Your task to perform on an android device: turn off location Image 0: 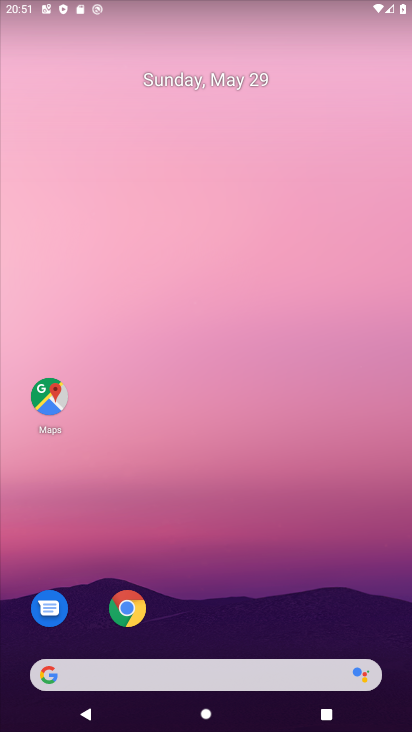
Step 0: drag from (380, 602) to (340, 301)
Your task to perform on an android device: turn off location Image 1: 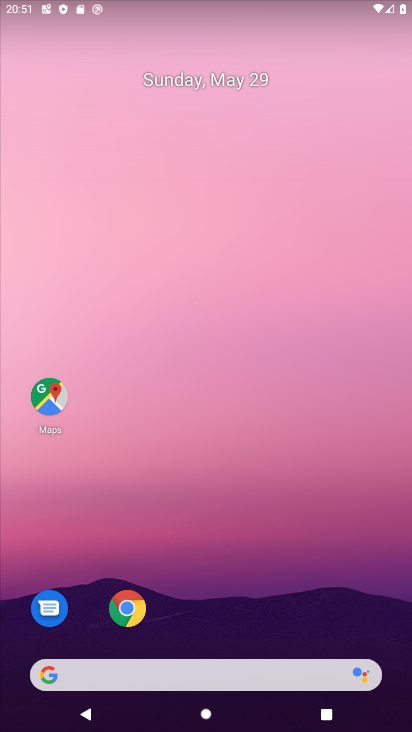
Step 1: drag from (361, 610) to (372, 230)
Your task to perform on an android device: turn off location Image 2: 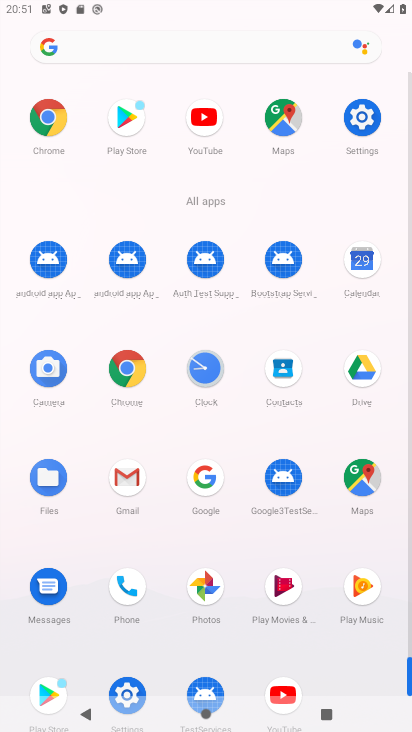
Step 2: click (364, 132)
Your task to perform on an android device: turn off location Image 3: 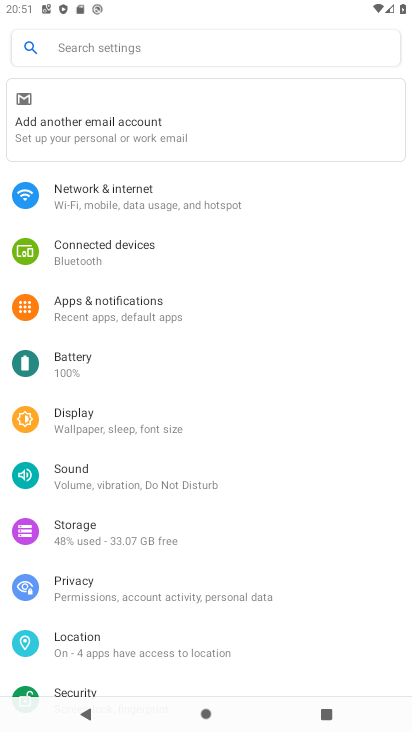
Step 3: drag from (335, 225) to (318, 442)
Your task to perform on an android device: turn off location Image 4: 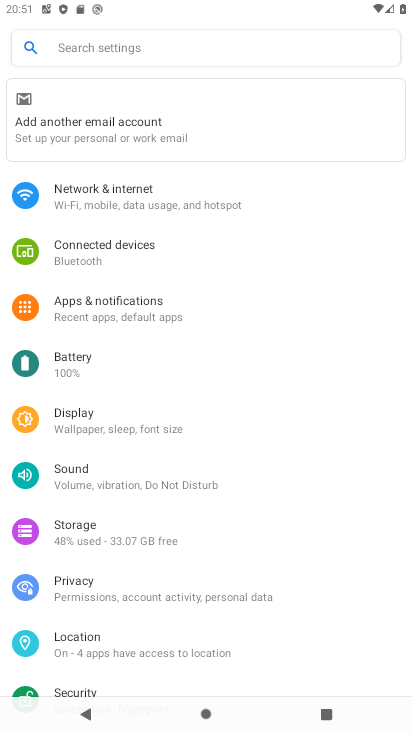
Step 4: drag from (330, 194) to (329, 432)
Your task to perform on an android device: turn off location Image 5: 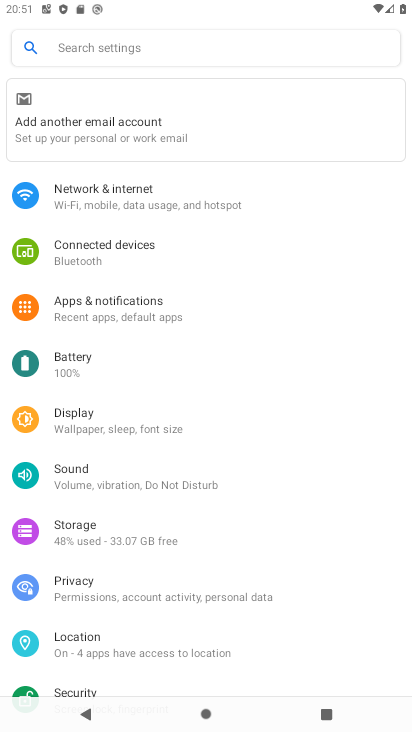
Step 5: drag from (348, 475) to (370, 346)
Your task to perform on an android device: turn off location Image 6: 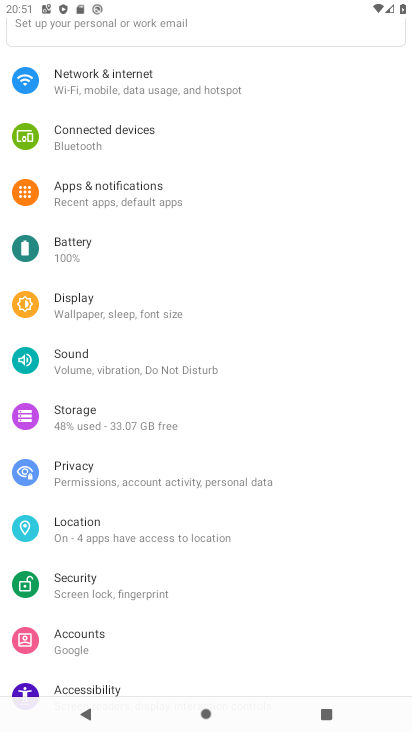
Step 6: drag from (377, 442) to (400, 304)
Your task to perform on an android device: turn off location Image 7: 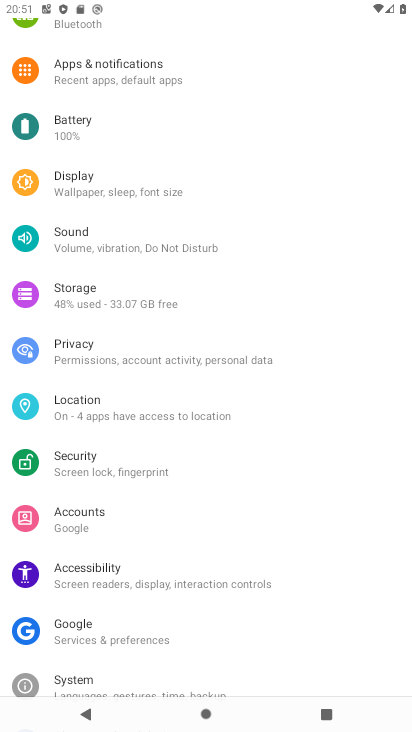
Step 7: drag from (371, 489) to (372, 350)
Your task to perform on an android device: turn off location Image 8: 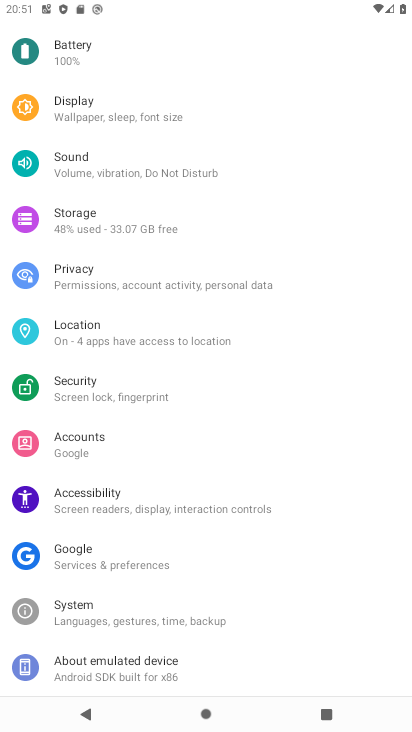
Step 8: drag from (360, 483) to (353, 358)
Your task to perform on an android device: turn off location Image 9: 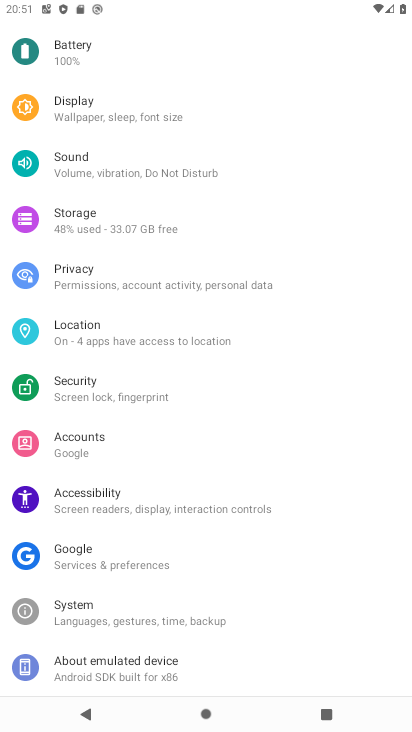
Step 9: drag from (351, 514) to (353, 398)
Your task to perform on an android device: turn off location Image 10: 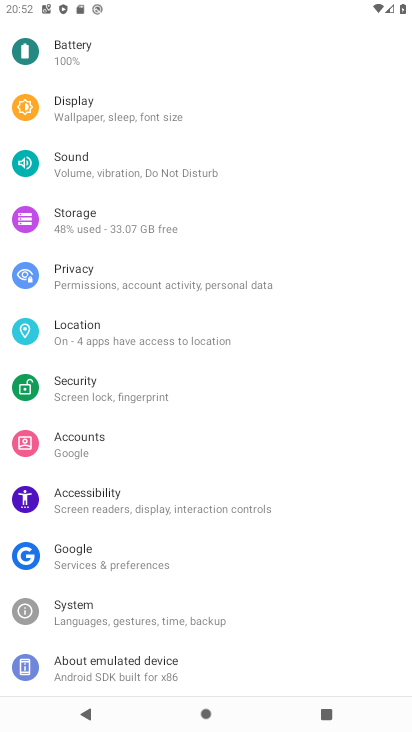
Step 10: click (207, 330)
Your task to perform on an android device: turn off location Image 11: 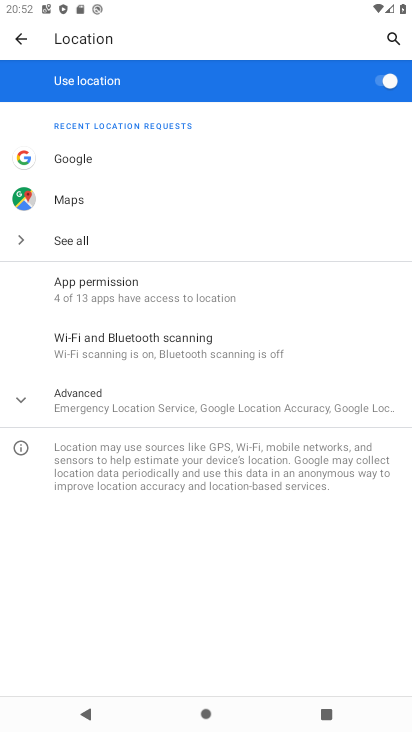
Step 11: click (390, 84)
Your task to perform on an android device: turn off location Image 12: 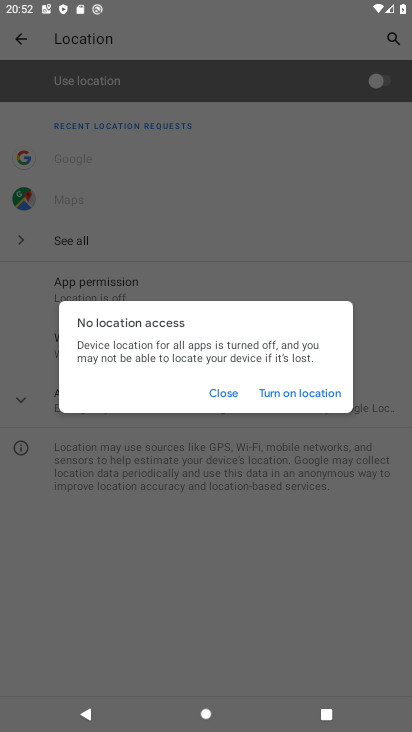
Step 12: task complete